Your task to perform on an android device: toggle priority inbox in the gmail app Image 0: 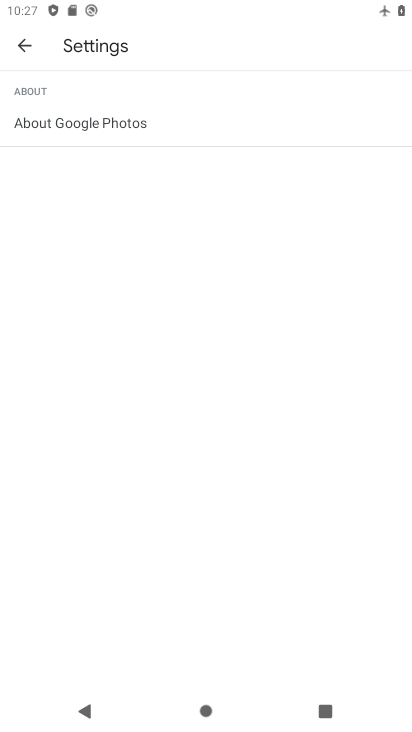
Step 0: press home button
Your task to perform on an android device: toggle priority inbox in the gmail app Image 1: 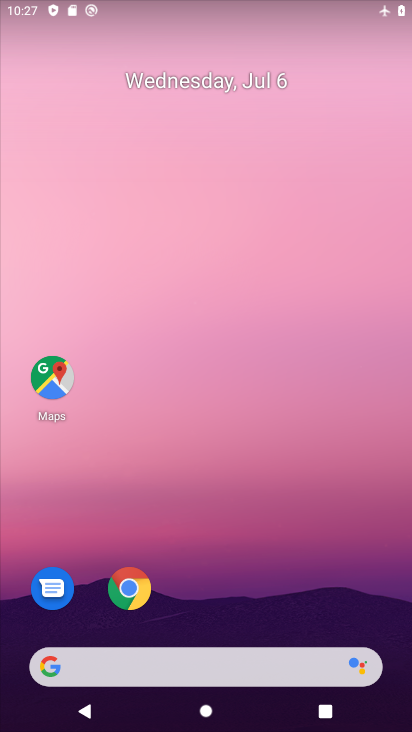
Step 1: drag from (187, 674) to (288, 187)
Your task to perform on an android device: toggle priority inbox in the gmail app Image 2: 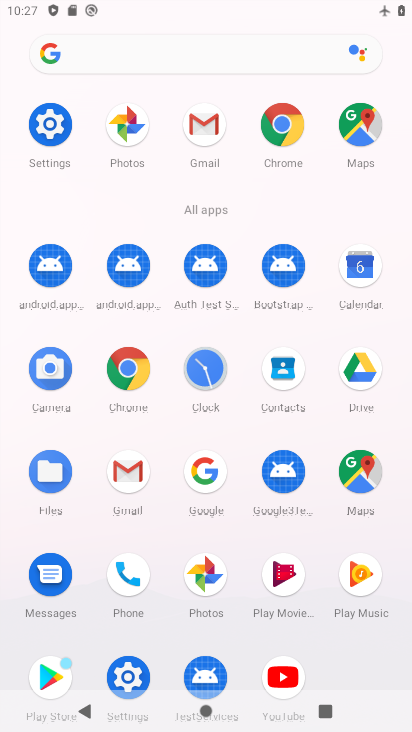
Step 2: click (209, 127)
Your task to perform on an android device: toggle priority inbox in the gmail app Image 3: 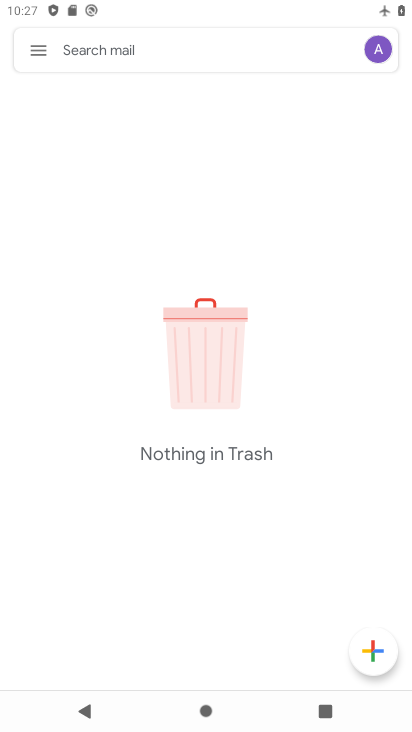
Step 3: click (44, 52)
Your task to perform on an android device: toggle priority inbox in the gmail app Image 4: 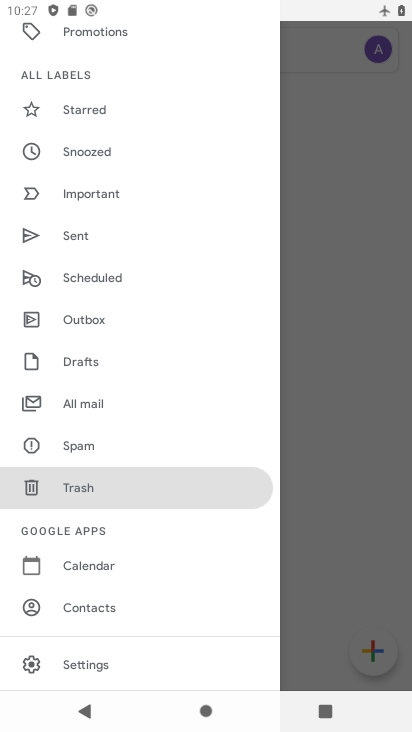
Step 4: click (95, 661)
Your task to perform on an android device: toggle priority inbox in the gmail app Image 5: 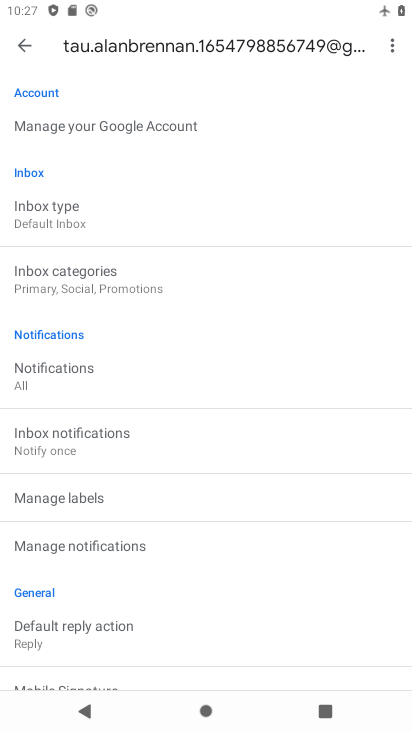
Step 5: click (62, 218)
Your task to perform on an android device: toggle priority inbox in the gmail app Image 6: 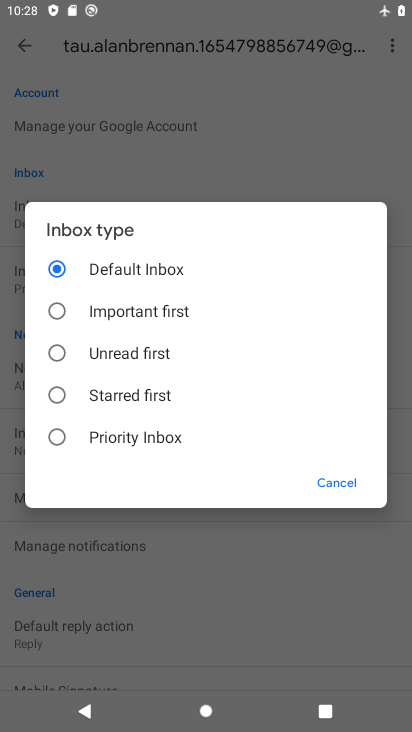
Step 6: click (52, 433)
Your task to perform on an android device: toggle priority inbox in the gmail app Image 7: 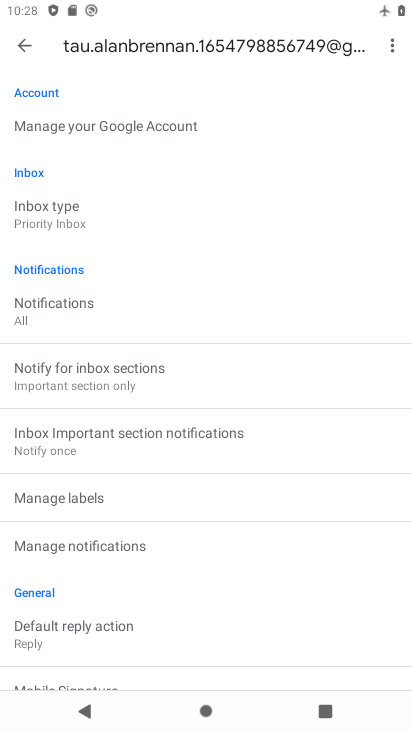
Step 7: task complete